Your task to perform on an android device: Go to settings Image 0: 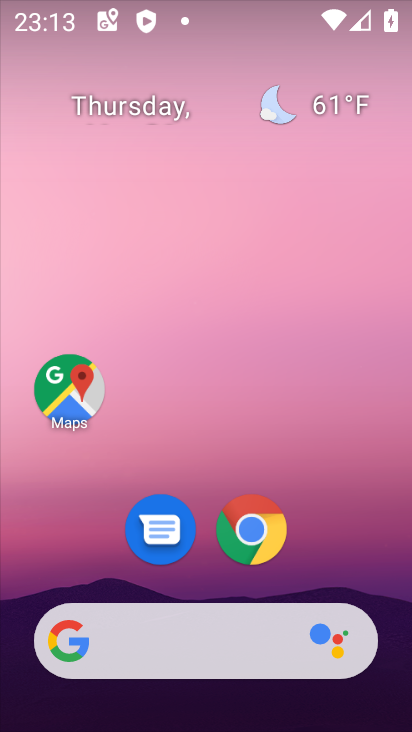
Step 0: drag from (362, 551) to (353, 134)
Your task to perform on an android device: Go to settings Image 1: 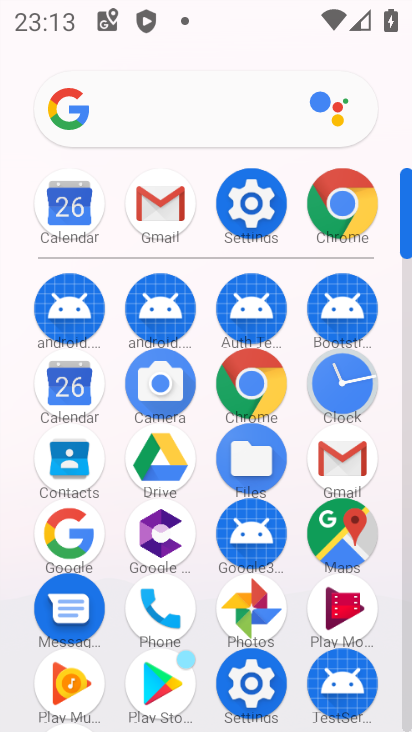
Step 1: click (236, 231)
Your task to perform on an android device: Go to settings Image 2: 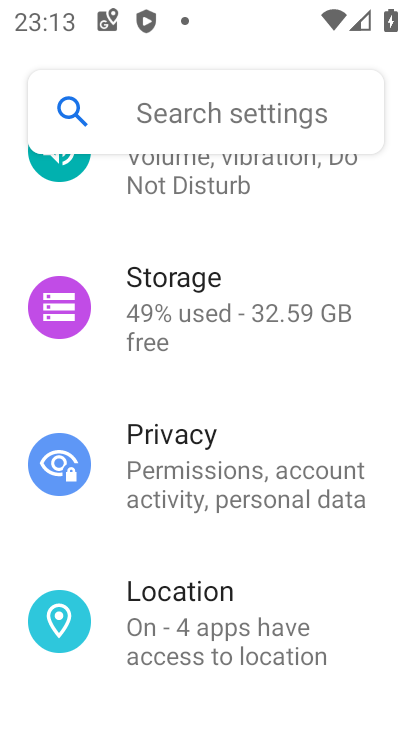
Step 2: task complete